Your task to perform on an android device: set an alarm Image 0: 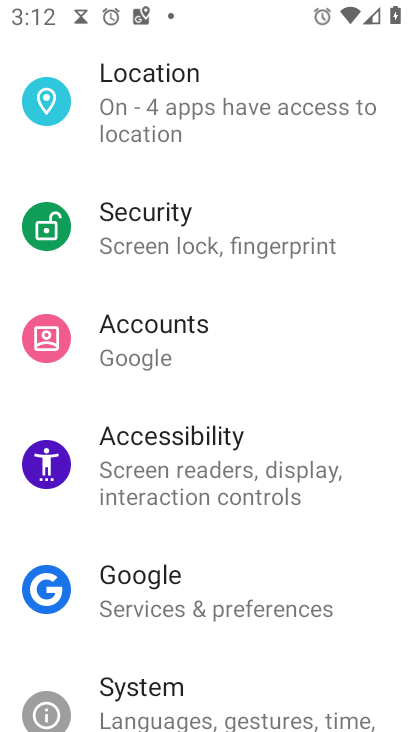
Step 0: press back button
Your task to perform on an android device: set an alarm Image 1: 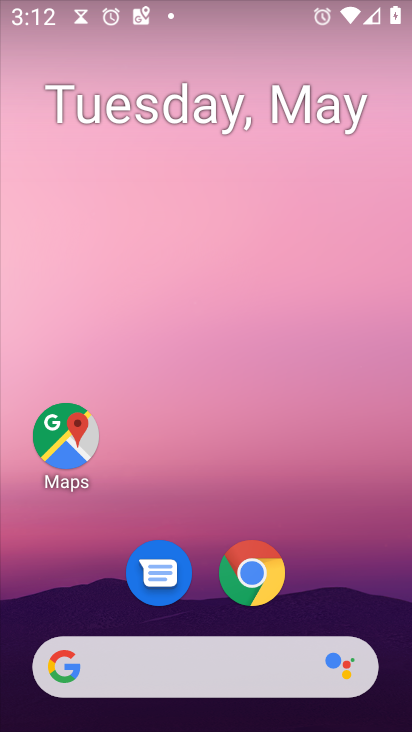
Step 1: drag from (338, 573) to (234, 14)
Your task to perform on an android device: set an alarm Image 2: 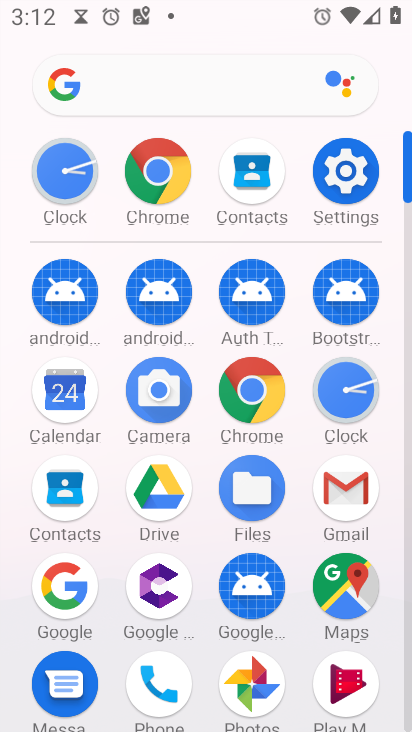
Step 2: drag from (23, 580) to (33, 218)
Your task to perform on an android device: set an alarm Image 3: 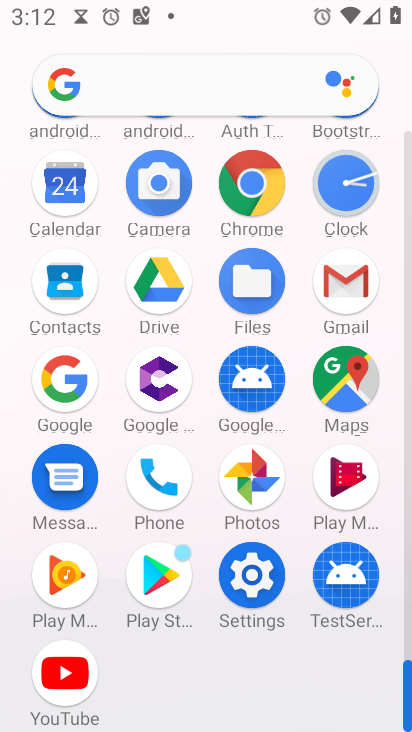
Step 3: click (347, 181)
Your task to perform on an android device: set an alarm Image 4: 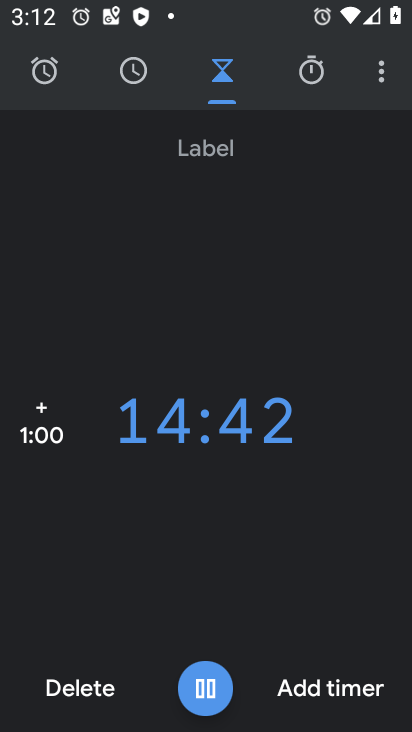
Step 4: click (42, 68)
Your task to perform on an android device: set an alarm Image 5: 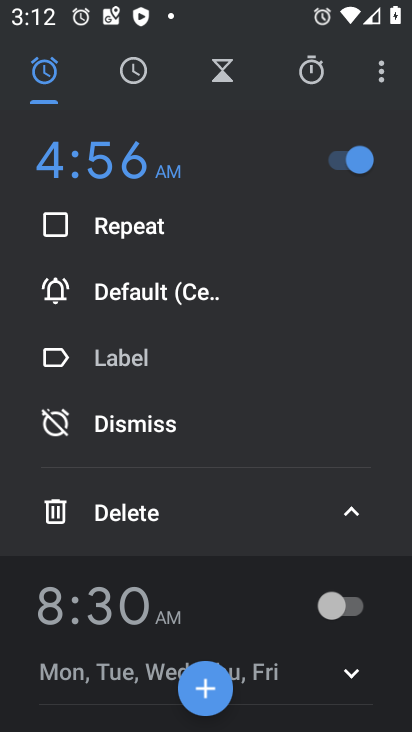
Step 5: click (198, 682)
Your task to perform on an android device: set an alarm Image 6: 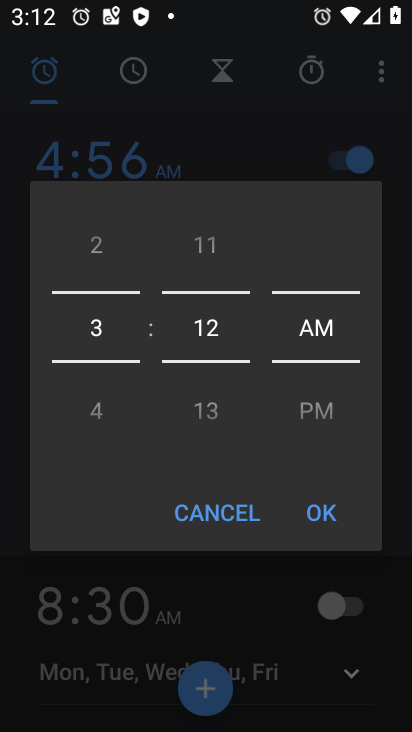
Step 6: drag from (95, 403) to (94, 151)
Your task to perform on an android device: set an alarm Image 7: 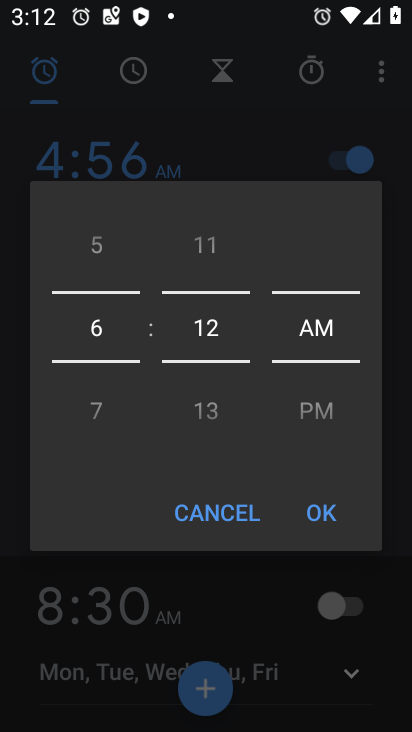
Step 7: drag from (116, 434) to (132, 225)
Your task to perform on an android device: set an alarm Image 8: 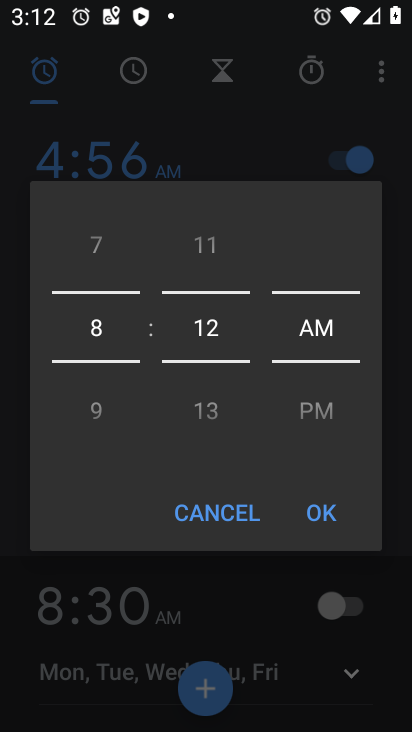
Step 8: drag from (337, 343) to (340, 222)
Your task to perform on an android device: set an alarm Image 9: 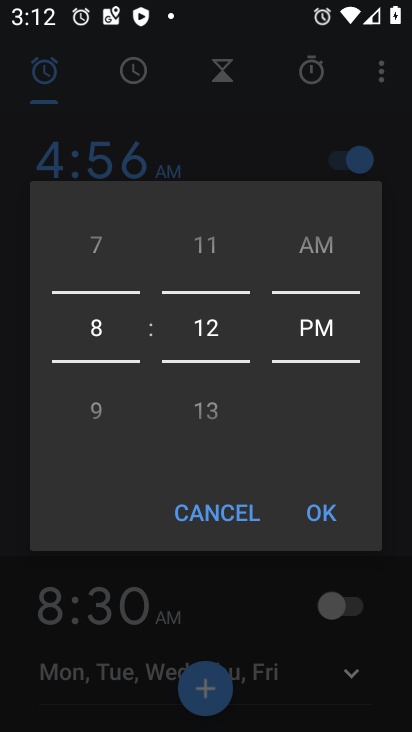
Step 9: click (325, 526)
Your task to perform on an android device: set an alarm Image 10: 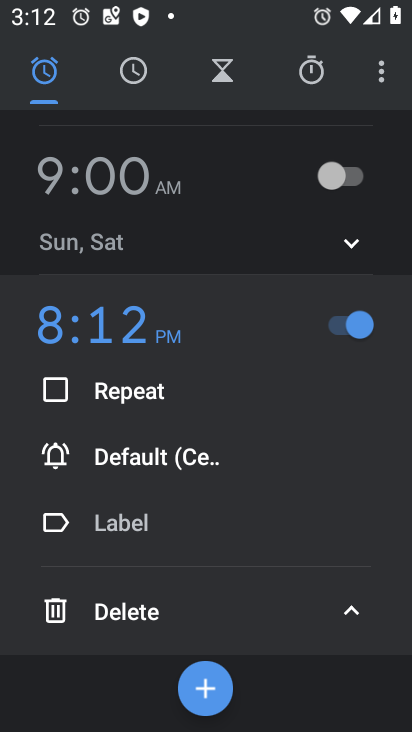
Step 10: click (62, 390)
Your task to perform on an android device: set an alarm Image 11: 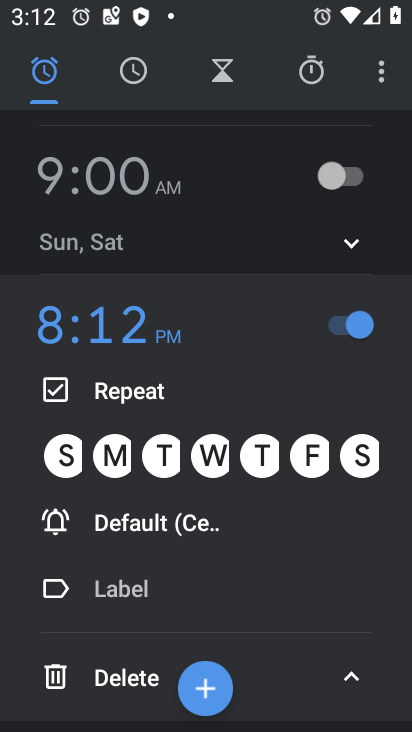
Step 11: click (359, 455)
Your task to perform on an android device: set an alarm Image 12: 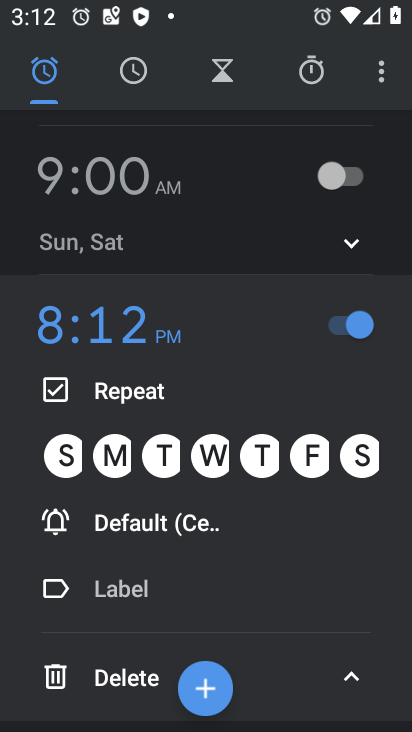
Step 12: click (357, 450)
Your task to perform on an android device: set an alarm Image 13: 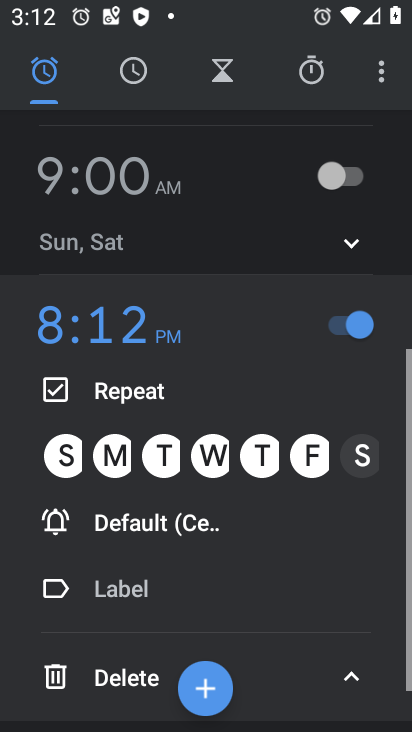
Step 13: click (304, 446)
Your task to perform on an android device: set an alarm Image 14: 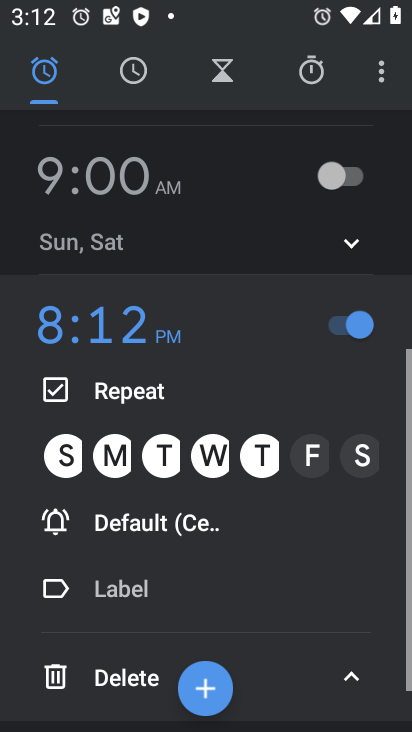
Step 14: click (169, 454)
Your task to perform on an android device: set an alarm Image 15: 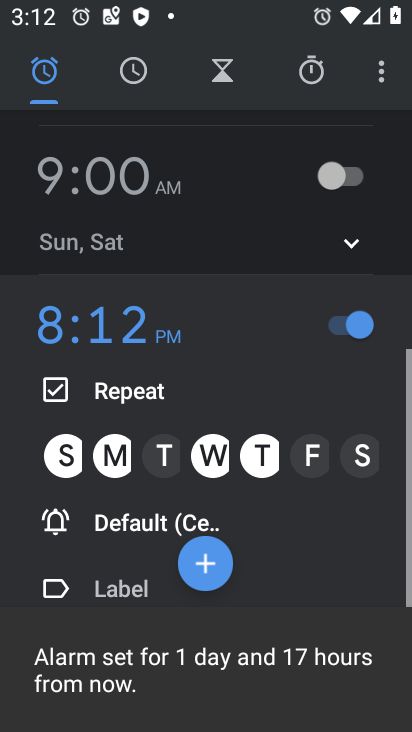
Step 15: click (68, 456)
Your task to perform on an android device: set an alarm Image 16: 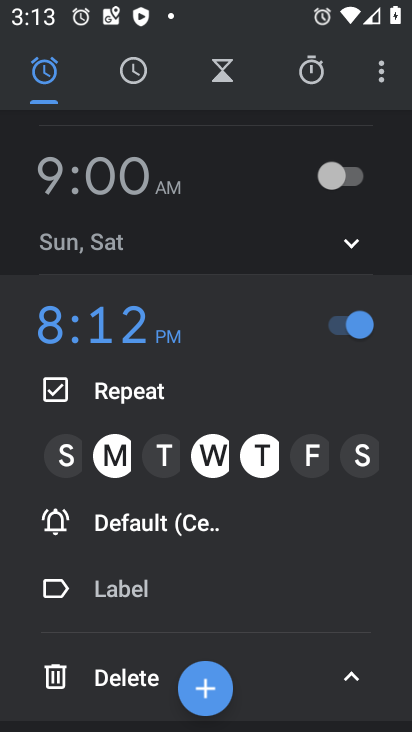
Step 16: click (147, 531)
Your task to perform on an android device: set an alarm Image 17: 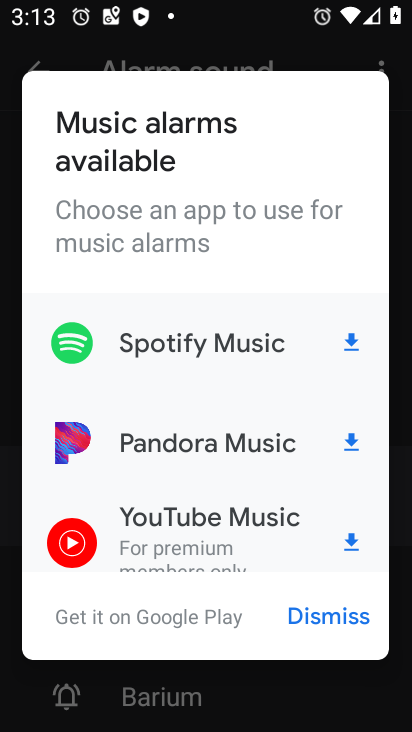
Step 17: click (325, 621)
Your task to perform on an android device: set an alarm Image 18: 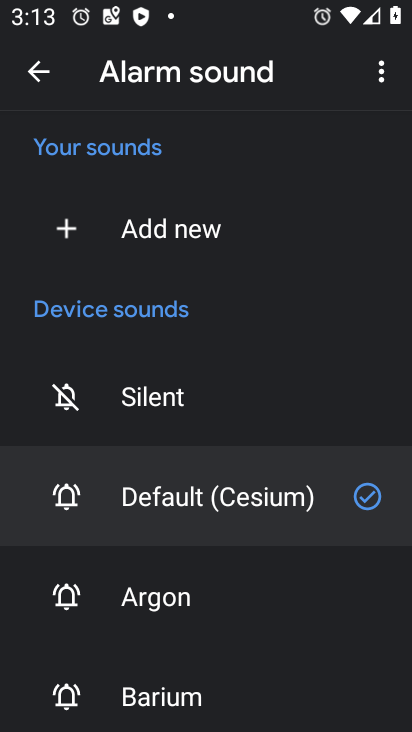
Step 18: task complete